Your task to perform on an android device: turn smart compose on in the gmail app Image 0: 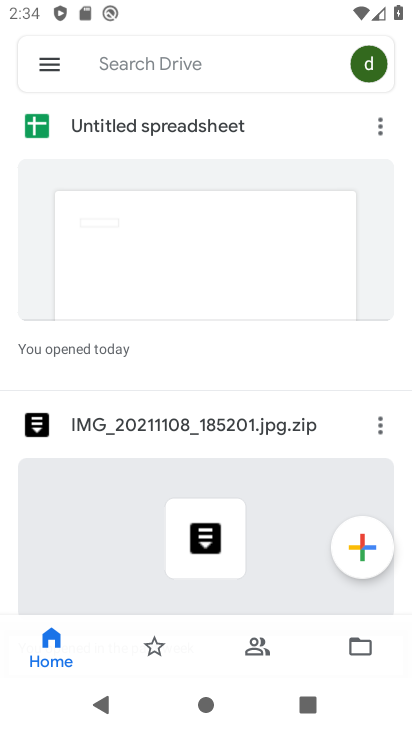
Step 0: press home button
Your task to perform on an android device: turn smart compose on in the gmail app Image 1: 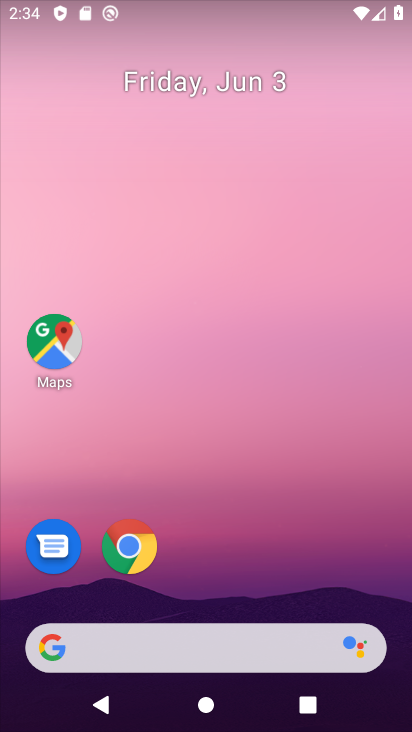
Step 1: drag from (270, 607) to (241, 31)
Your task to perform on an android device: turn smart compose on in the gmail app Image 2: 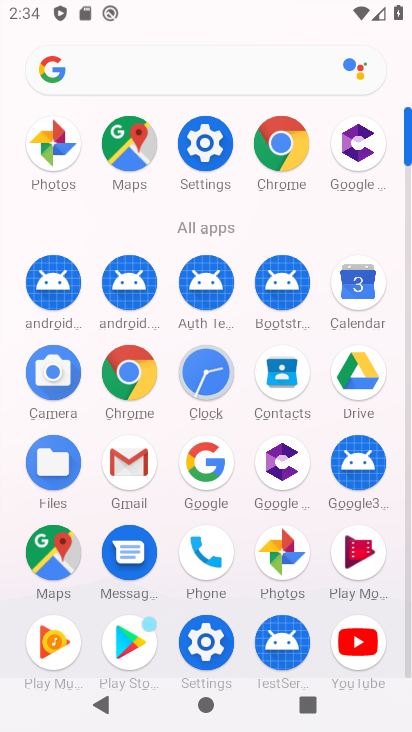
Step 2: click (133, 464)
Your task to perform on an android device: turn smart compose on in the gmail app Image 3: 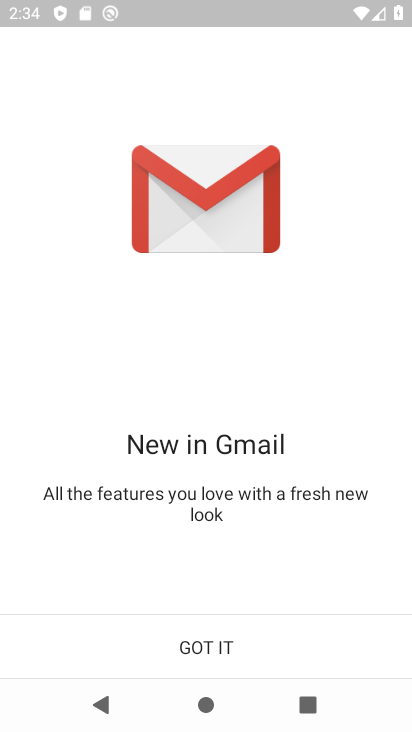
Step 3: click (190, 659)
Your task to perform on an android device: turn smart compose on in the gmail app Image 4: 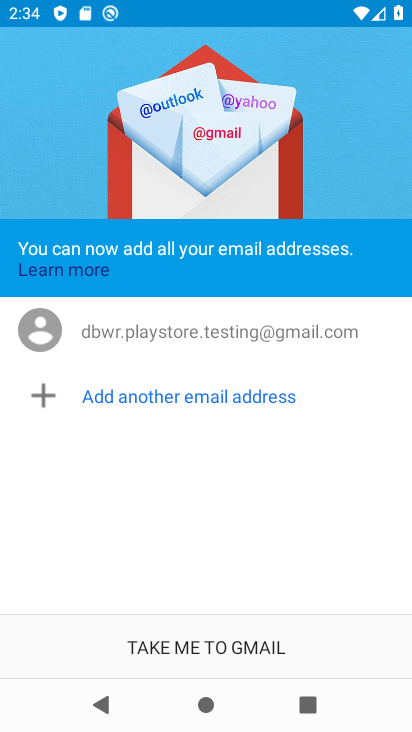
Step 4: click (200, 642)
Your task to perform on an android device: turn smart compose on in the gmail app Image 5: 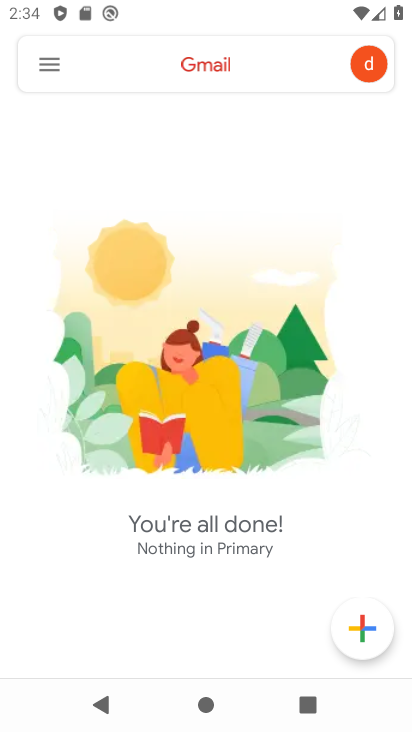
Step 5: click (53, 71)
Your task to perform on an android device: turn smart compose on in the gmail app Image 6: 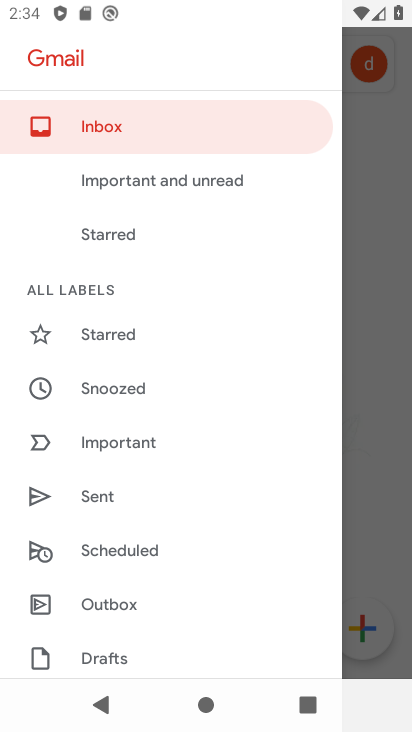
Step 6: drag from (178, 551) to (174, 45)
Your task to perform on an android device: turn smart compose on in the gmail app Image 7: 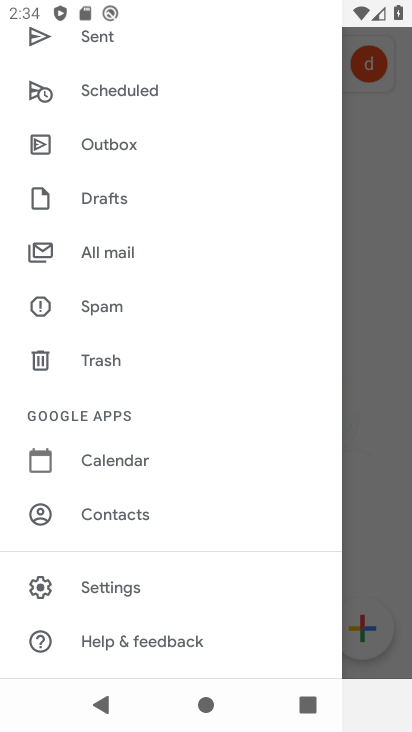
Step 7: drag from (186, 521) to (169, 85)
Your task to perform on an android device: turn smart compose on in the gmail app Image 8: 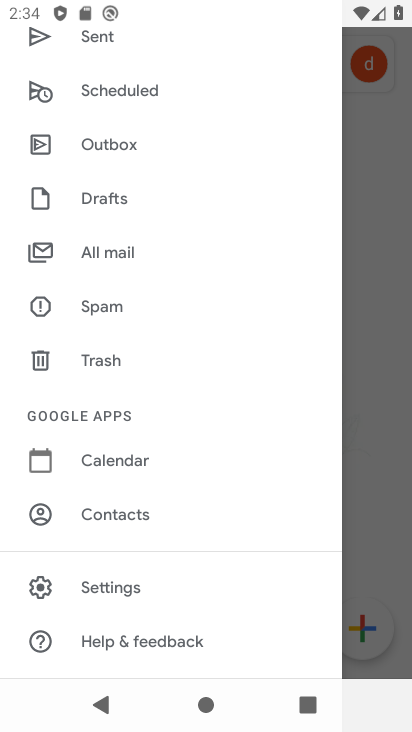
Step 8: click (114, 583)
Your task to perform on an android device: turn smart compose on in the gmail app Image 9: 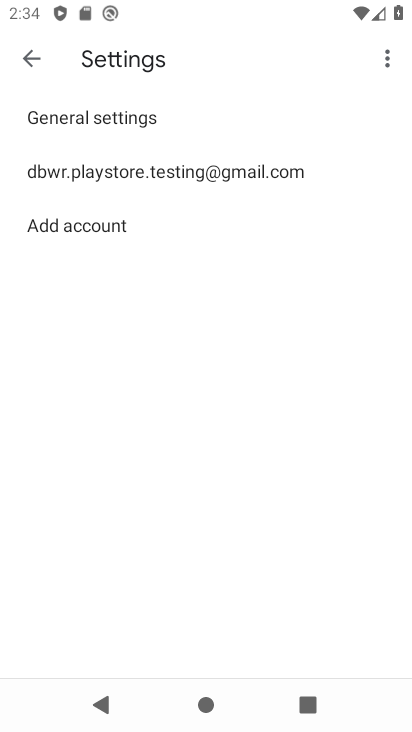
Step 9: click (213, 176)
Your task to perform on an android device: turn smart compose on in the gmail app Image 10: 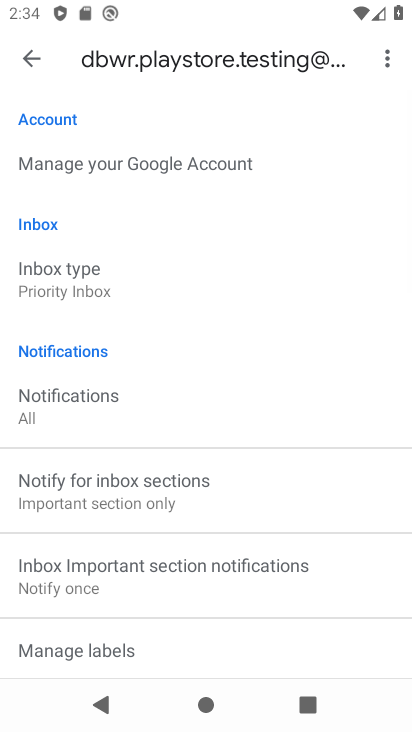
Step 10: task complete